Your task to perform on an android device: Open wifi settings Image 0: 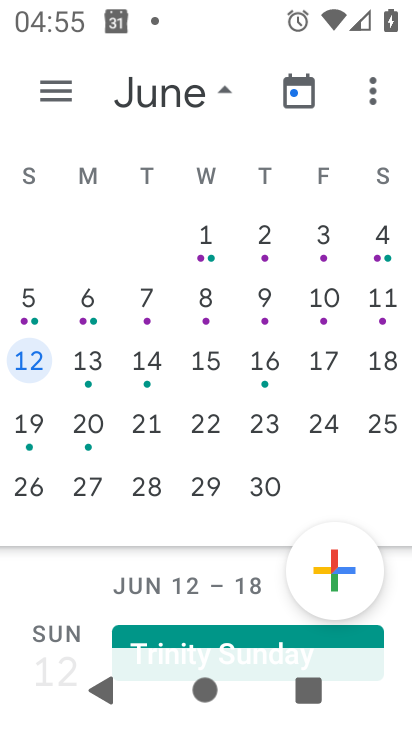
Step 0: press home button
Your task to perform on an android device: Open wifi settings Image 1: 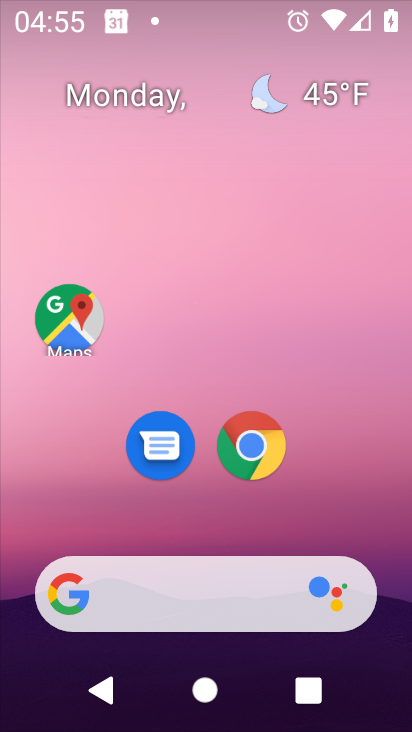
Step 1: drag from (279, 481) to (296, 3)
Your task to perform on an android device: Open wifi settings Image 2: 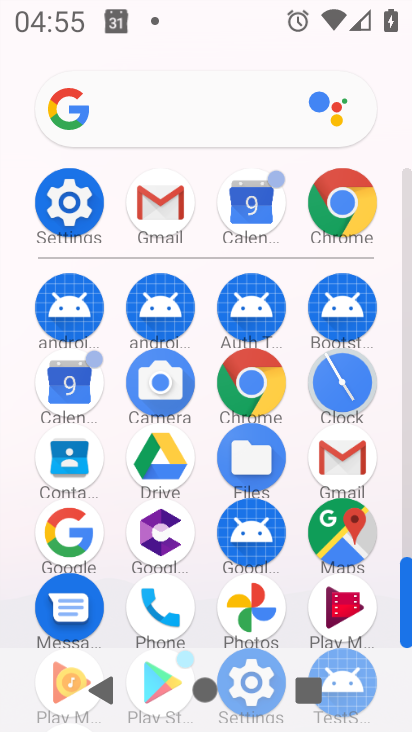
Step 2: click (68, 201)
Your task to perform on an android device: Open wifi settings Image 3: 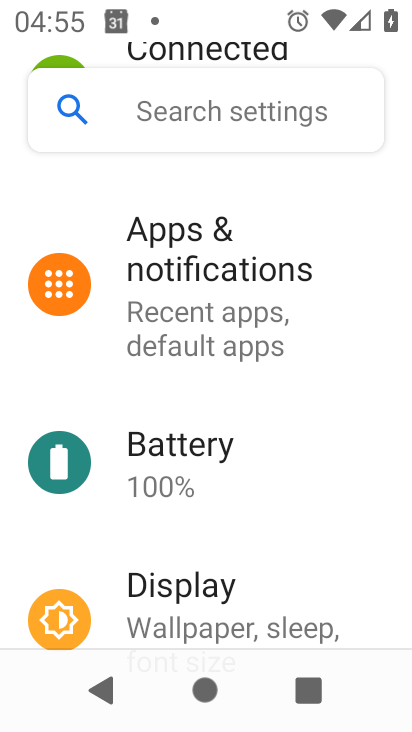
Step 3: drag from (271, 199) to (362, 543)
Your task to perform on an android device: Open wifi settings Image 4: 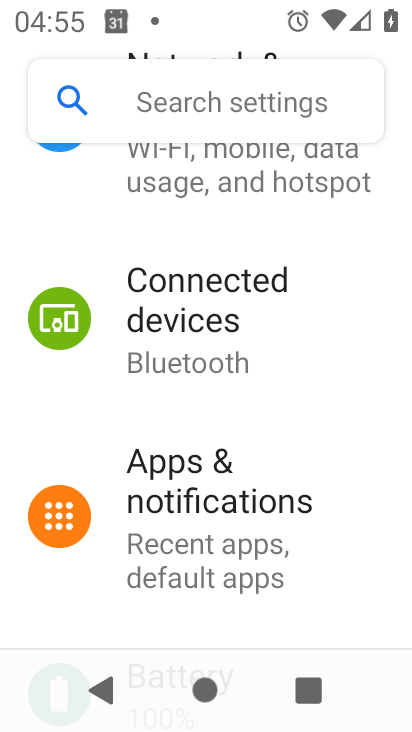
Step 4: click (229, 200)
Your task to perform on an android device: Open wifi settings Image 5: 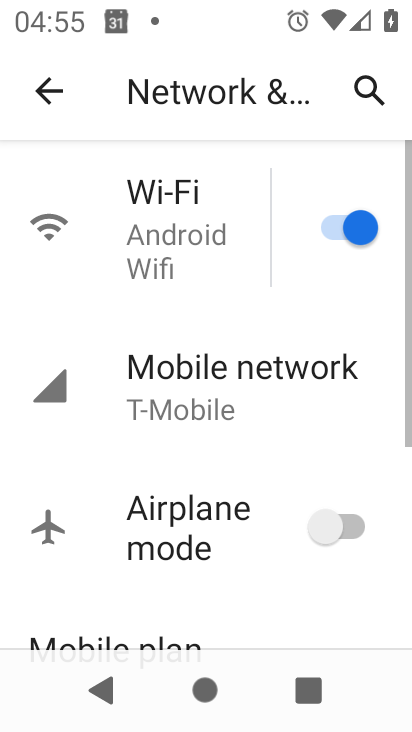
Step 5: click (178, 244)
Your task to perform on an android device: Open wifi settings Image 6: 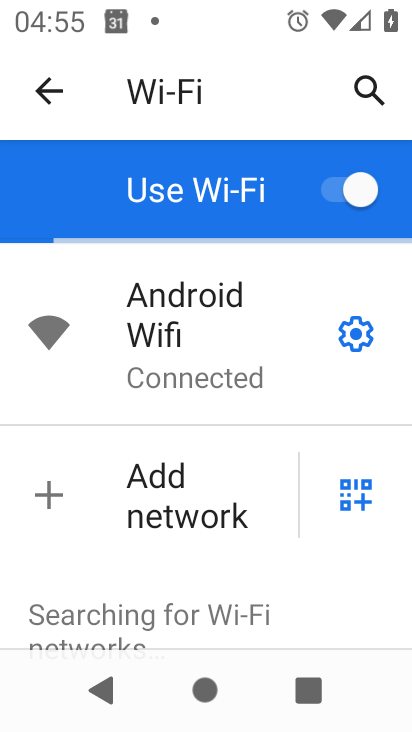
Step 6: task complete